Your task to perform on an android device: change notification settings in the gmail app Image 0: 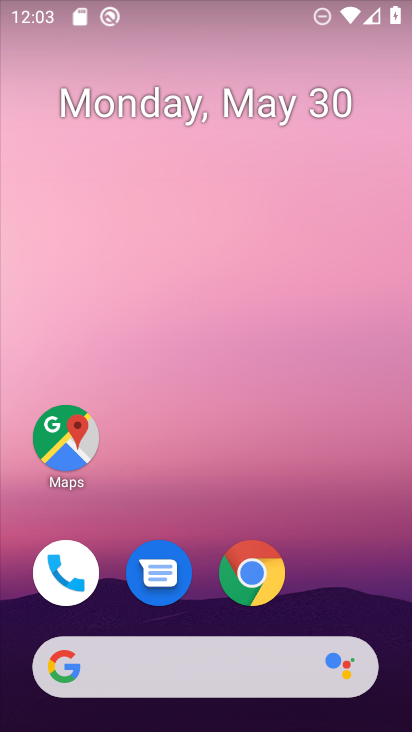
Step 0: drag from (331, 580) to (338, 224)
Your task to perform on an android device: change notification settings in the gmail app Image 1: 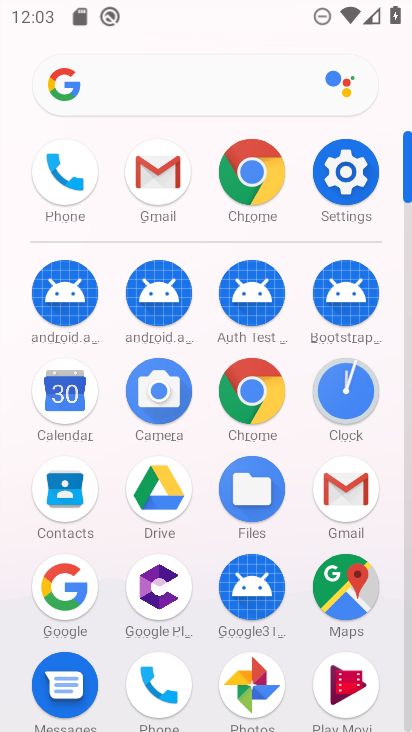
Step 1: click (165, 173)
Your task to perform on an android device: change notification settings in the gmail app Image 2: 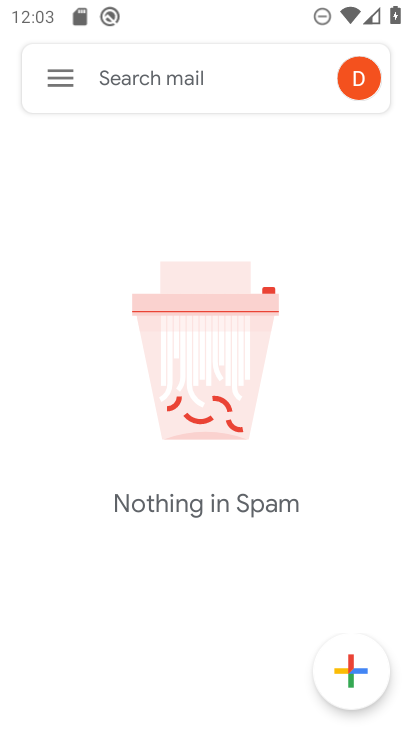
Step 2: click (61, 92)
Your task to perform on an android device: change notification settings in the gmail app Image 3: 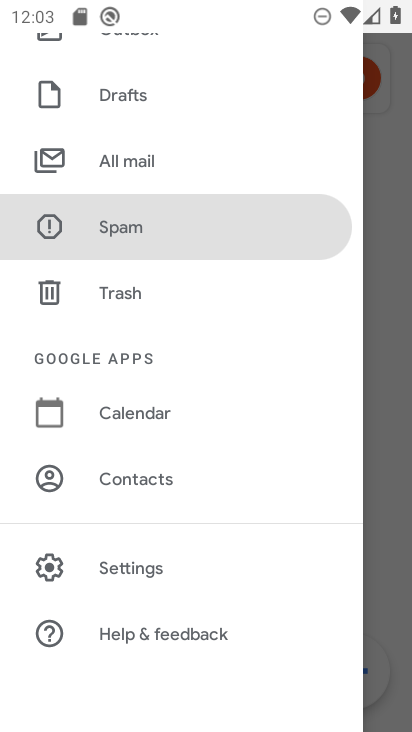
Step 3: click (163, 563)
Your task to perform on an android device: change notification settings in the gmail app Image 4: 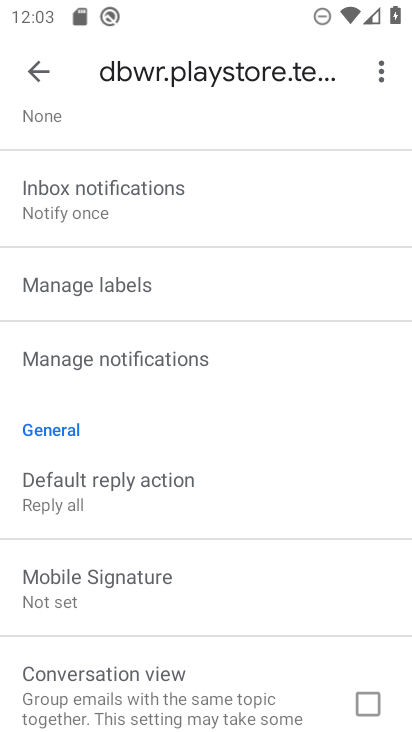
Step 4: click (81, 368)
Your task to perform on an android device: change notification settings in the gmail app Image 5: 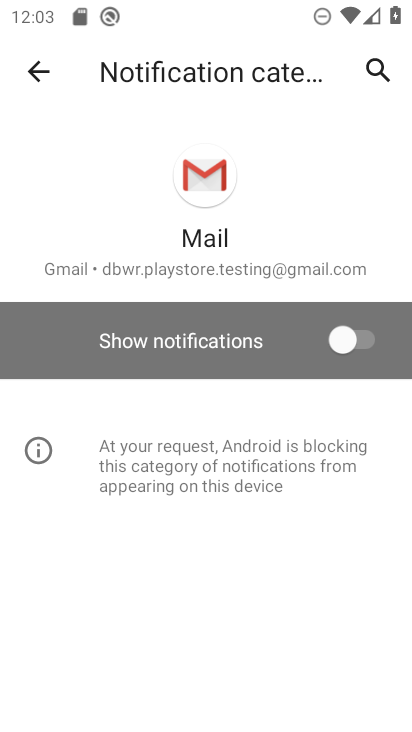
Step 5: click (356, 340)
Your task to perform on an android device: change notification settings in the gmail app Image 6: 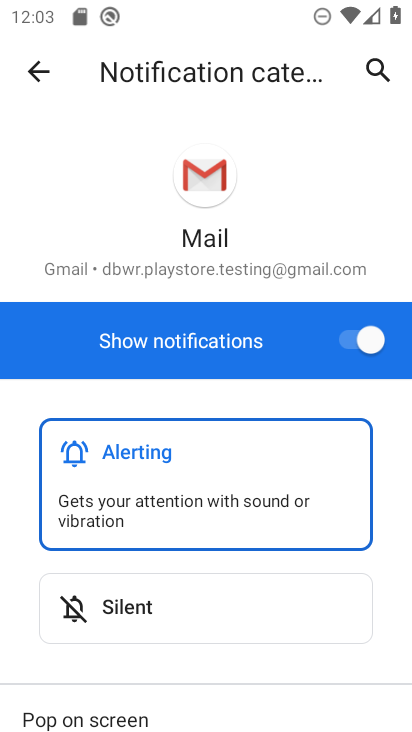
Step 6: task complete